Your task to perform on an android device: turn on wifi Image 0: 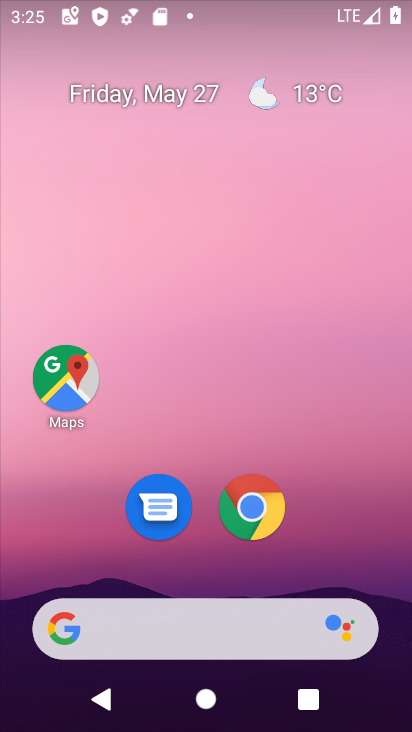
Step 0: drag from (113, 515) to (203, 193)
Your task to perform on an android device: turn on wifi Image 1: 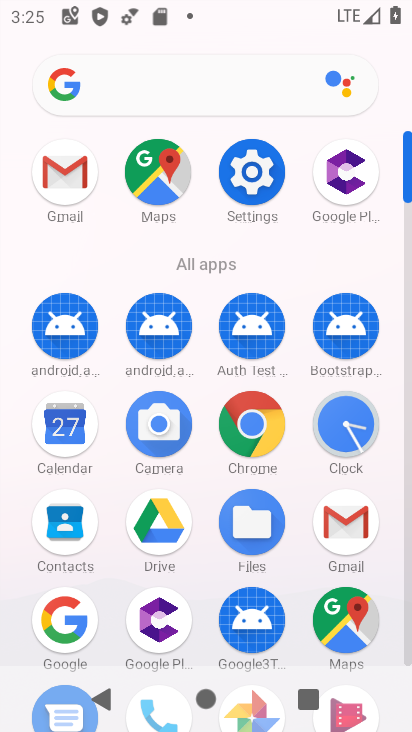
Step 1: drag from (172, 561) to (262, 296)
Your task to perform on an android device: turn on wifi Image 2: 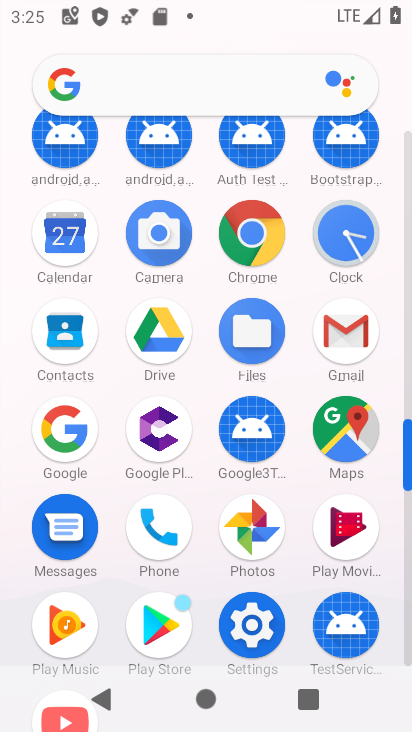
Step 2: click (258, 631)
Your task to perform on an android device: turn on wifi Image 3: 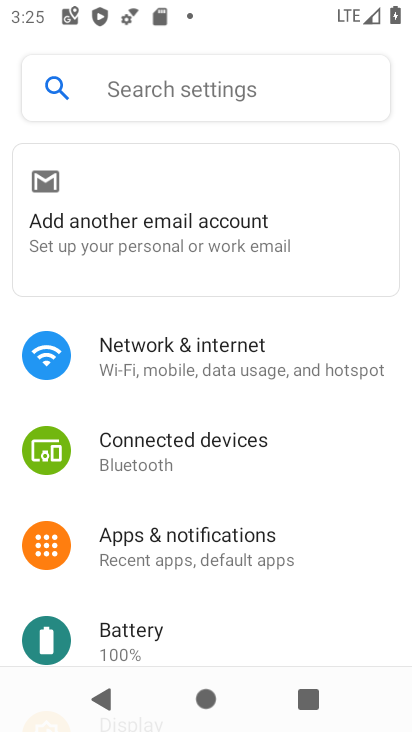
Step 3: click (208, 369)
Your task to perform on an android device: turn on wifi Image 4: 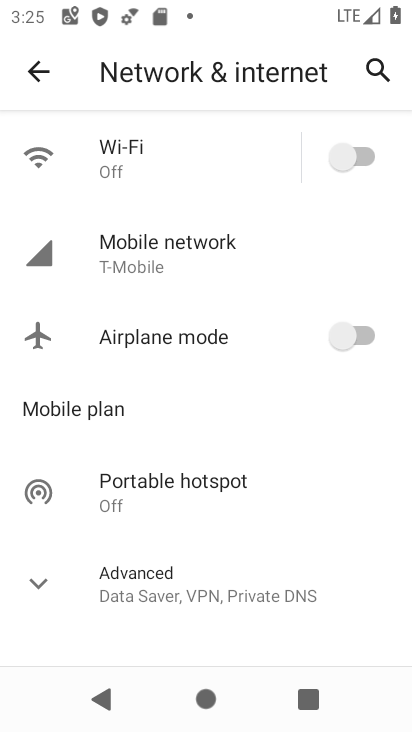
Step 4: click (404, 148)
Your task to perform on an android device: turn on wifi Image 5: 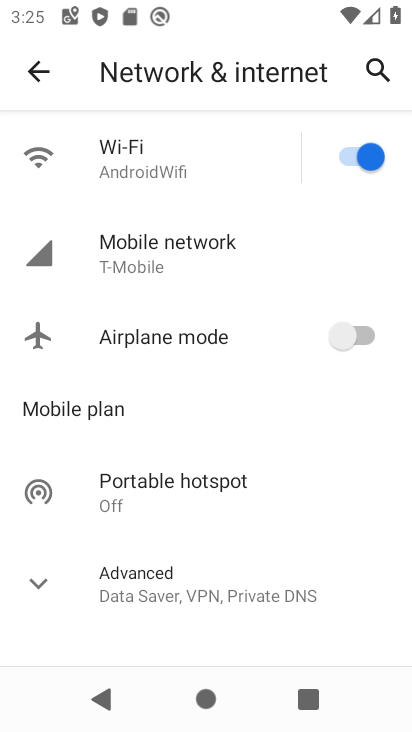
Step 5: task complete